Your task to perform on an android device: Open Reddit.com Image 0: 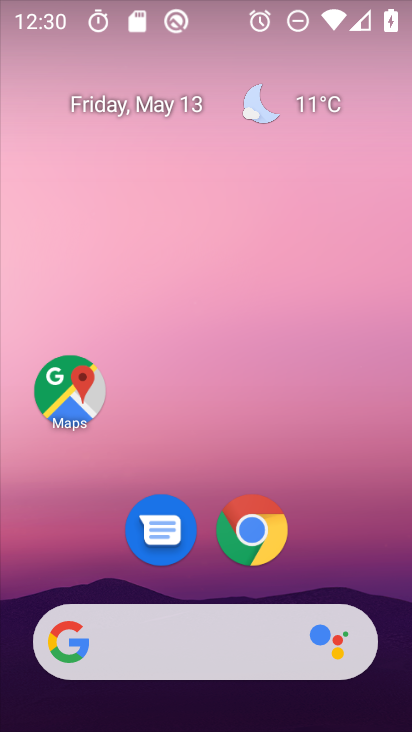
Step 0: press home button
Your task to perform on an android device: Open Reddit.com Image 1: 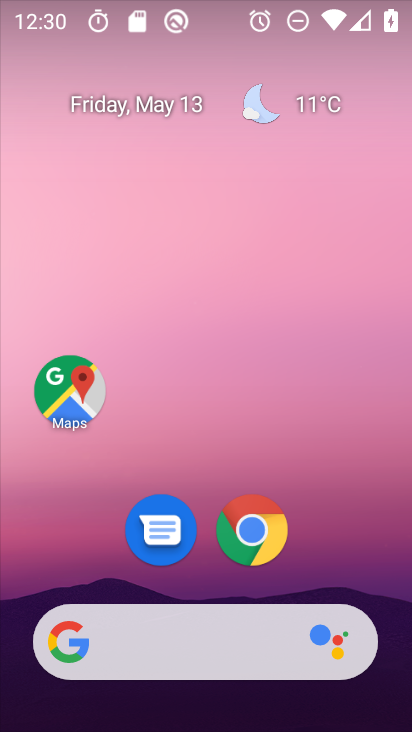
Step 1: click (250, 538)
Your task to perform on an android device: Open Reddit.com Image 2: 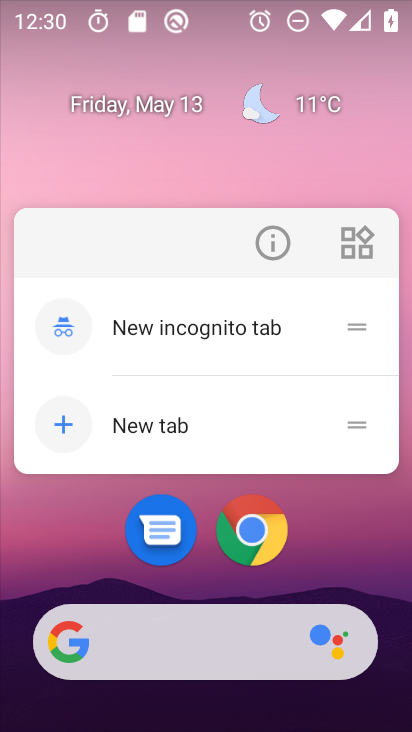
Step 2: click (249, 536)
Your task to perform on an android device: Open Reddit.com Image 3: 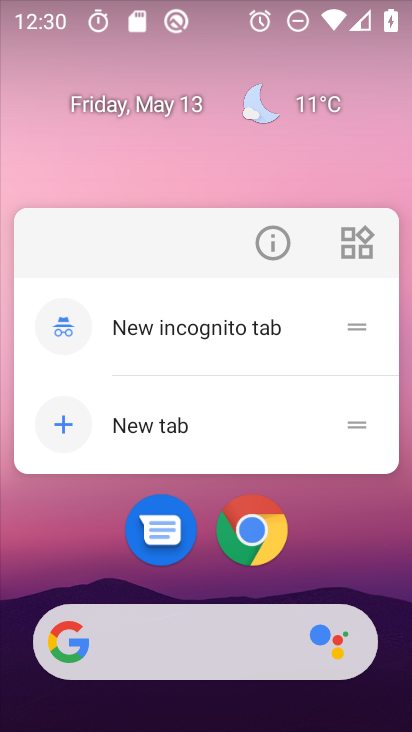
Step 3: click (256, 546)
Your task to perform on an android device: Open Reddit.com Image 4: 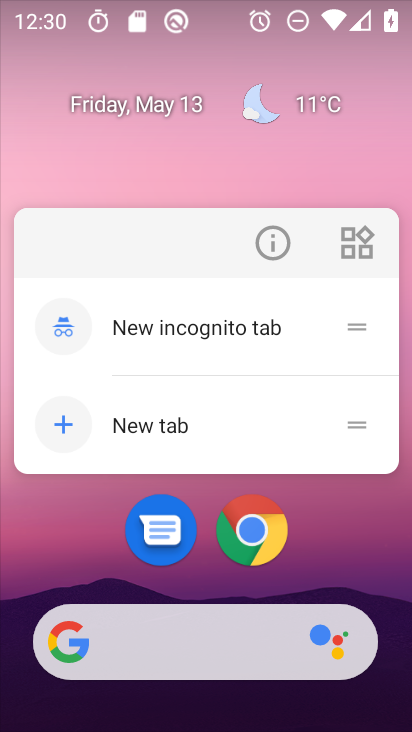
Step 4: click (268, 538)
Your task to perform on an android device: Open Reddit.com Image 5: 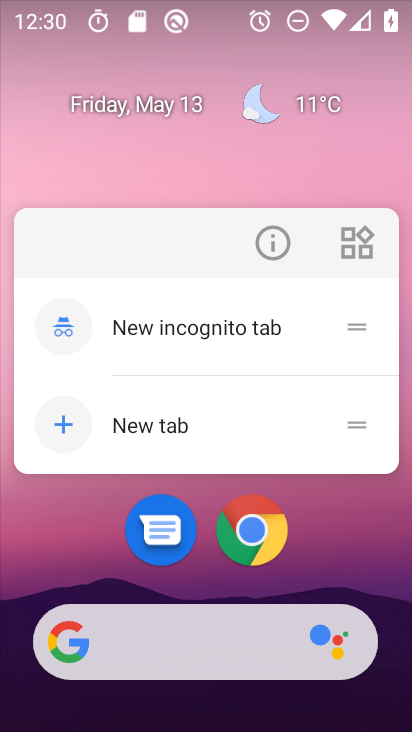
Step 5: click (268, 524)
Your task to perform on an android device: Open Reddit.com Image 6: 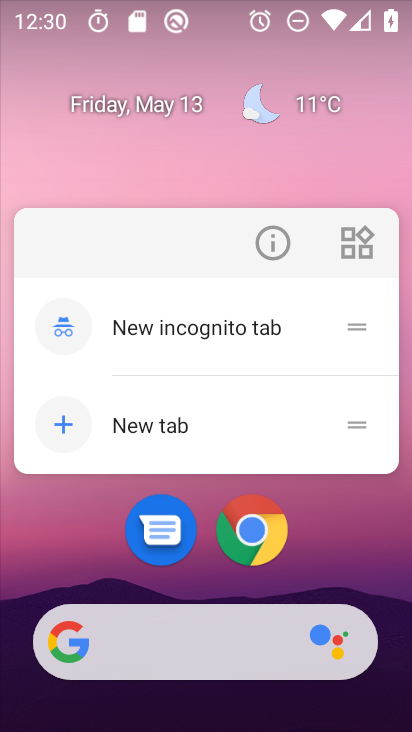
Step 6: click (246, 545)
Your task to perform on an android device: Open Reddit.com Image 7: 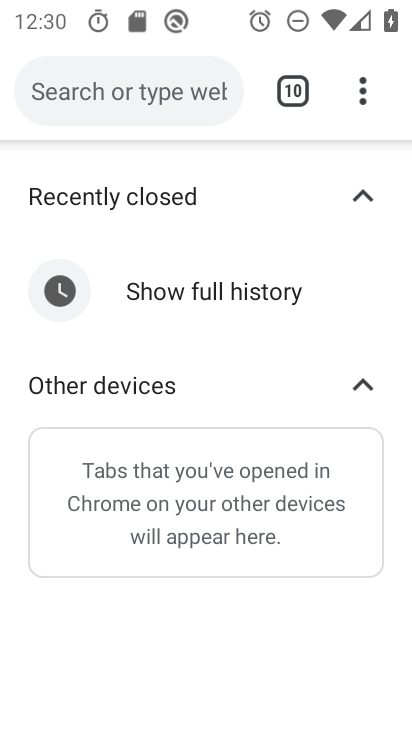
Step 7: drag from (358, 92) to (231, 175)
Your task to perform on an android device: Open Reddit.com Image 8: 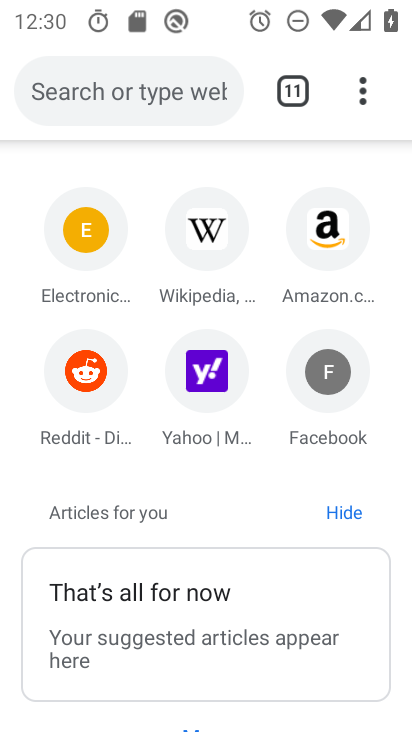
Step 8: click (110, 86)
Your task to perform on an android device: Open Reddit.com Image 9: 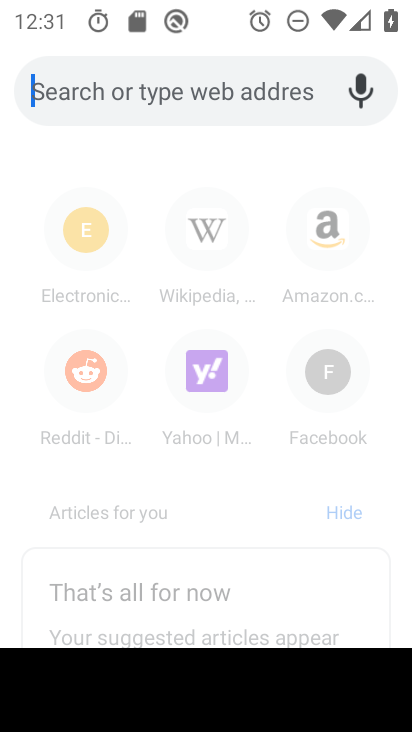
Step 9: type "reddit.com"
Your task to perform on an android device: Open Reddit.com Image 10: 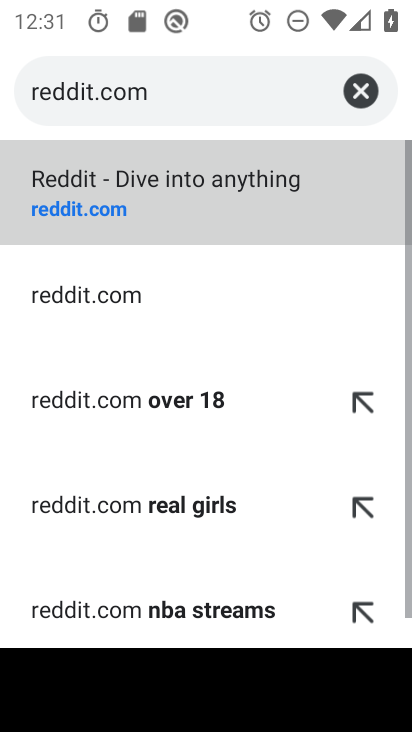
Step 10: click (178, 199)
Your task to perform on an android device: Open Reddit.com Image 11: 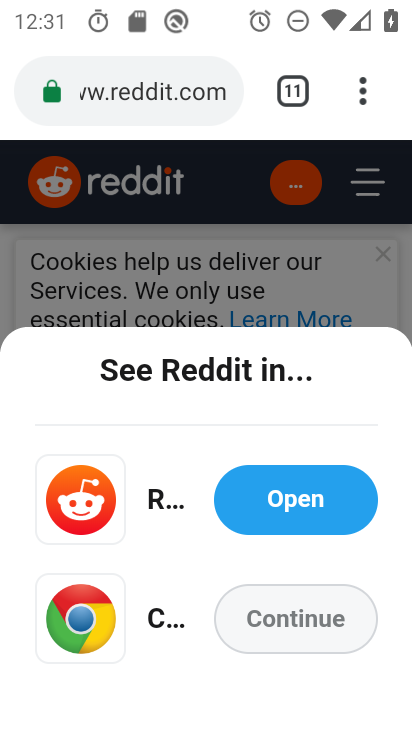
Step 11: task complete